Your task to perform on an android device: change keyboard looks Image 0: 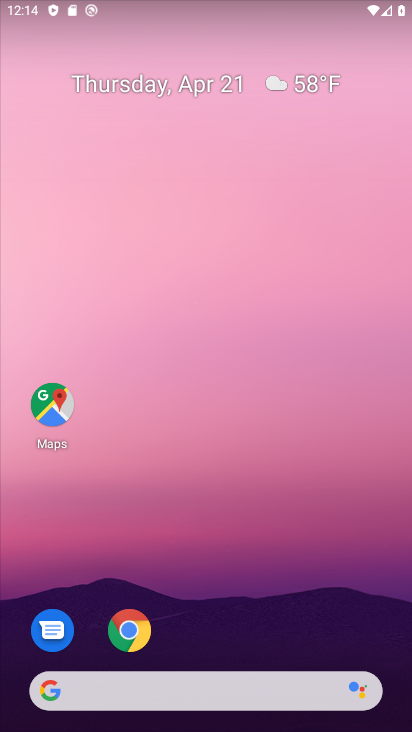
Step 0: drag from (214, 633) to (314, 147)
Your task to perform on an android device: change keyboard looks Image 1: 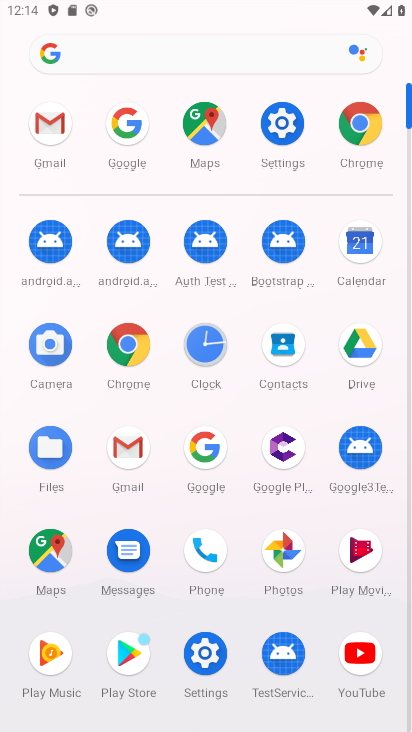
Step 1: click (283, 135)
Your task to perform on an android device: change keyboard looks Image 2: 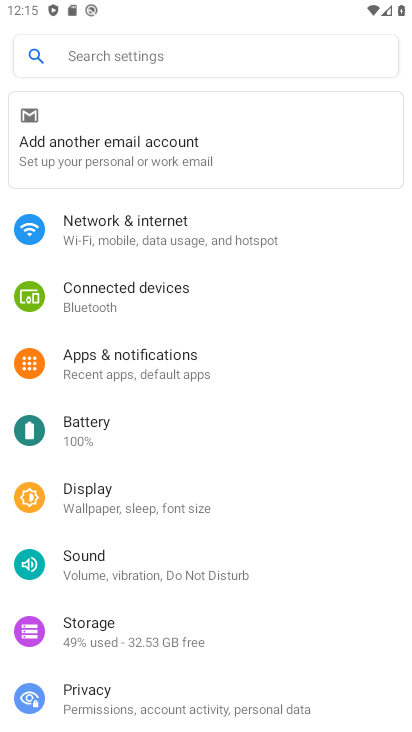
Step 2: drag from (197, 607) to (340, 100)
Your task to perform on an android device: change keyboard looks Image 3: 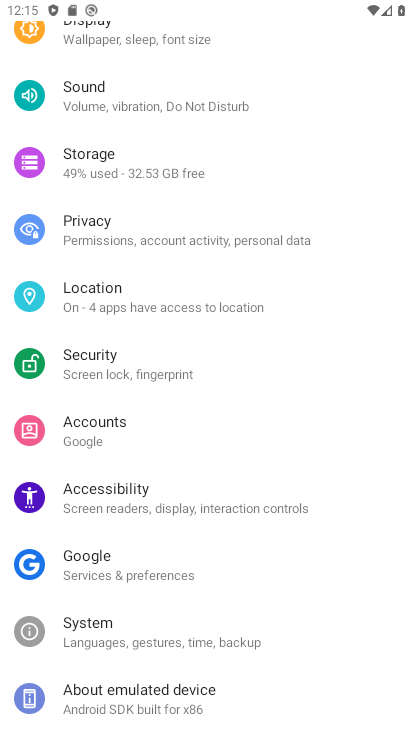
Step 3: click (114, 639)
Your task to perform on an android device: change keyboard looks Image 4: 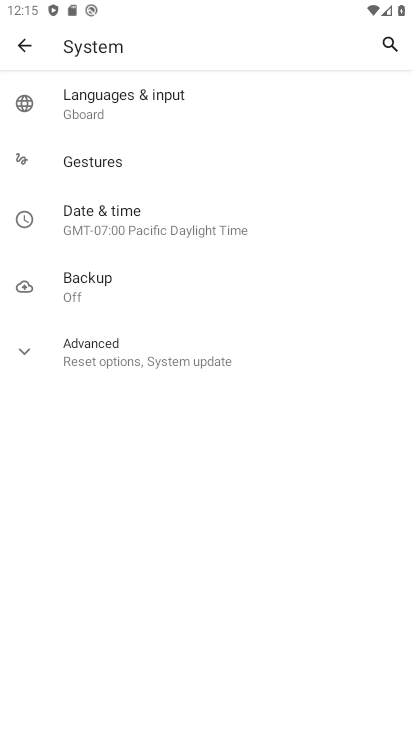
Step 4: click (115, 106)
Your task to perform on an android device: change keyboard looks Image 5: 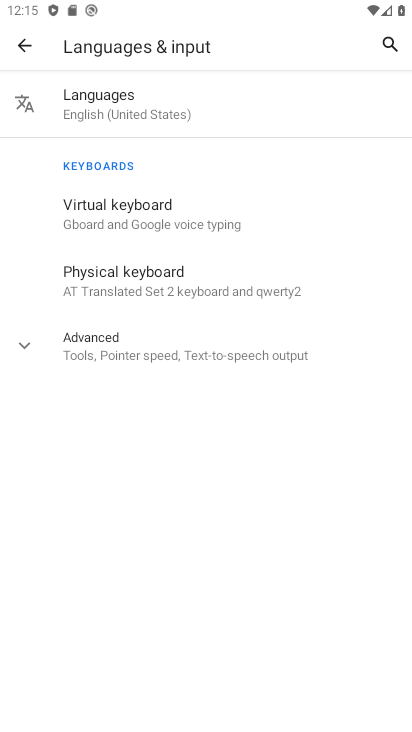
Step 5: click (103, 222)
Your task to perform on an android device: change keyboard looks Image 6: 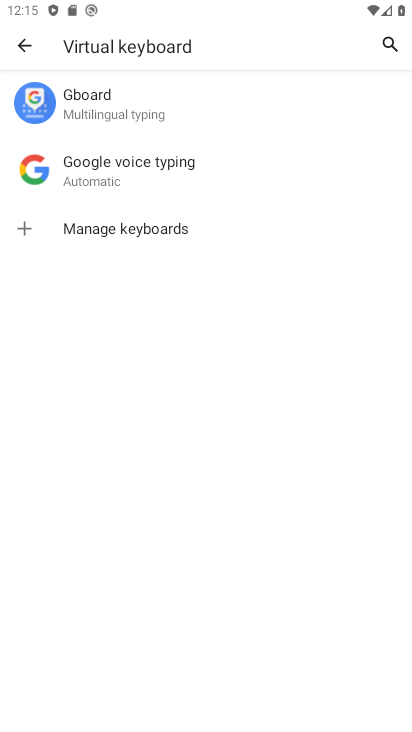
Step 6: click (108, 95)
Your task to perform on an android device: change keyboard looks Image 7: 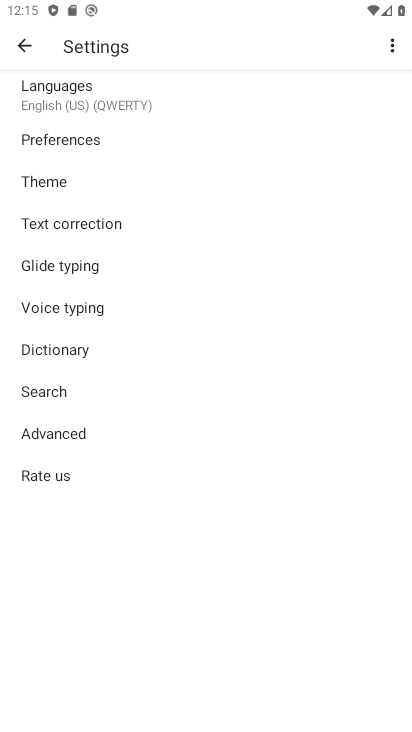
Step 7: click (47, 189)
Your task to perform on an android device: change keyboard looks Image 8: 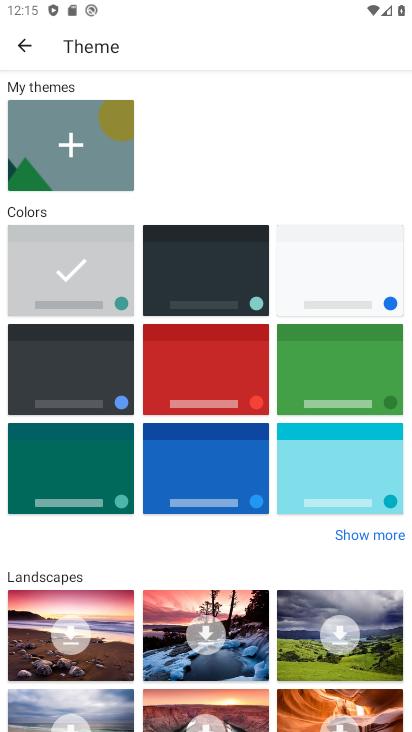
Step 8: click (234, 478)
Your task to perform on an android device: change keyboard looks Image 9: 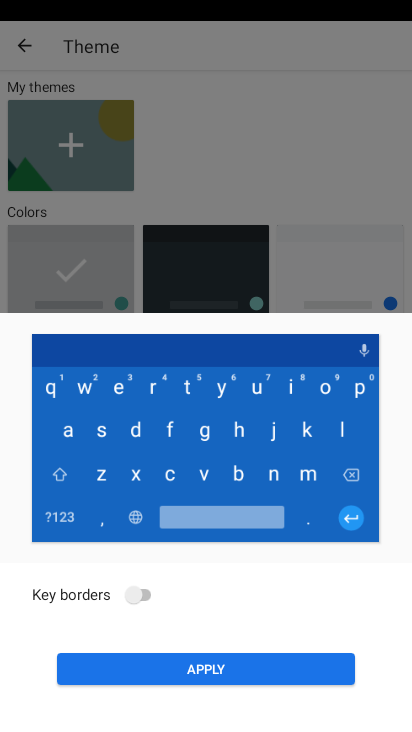
Step 9: click (221, 666)
Your task to perform on an android device: change keyboard looks Image 10: 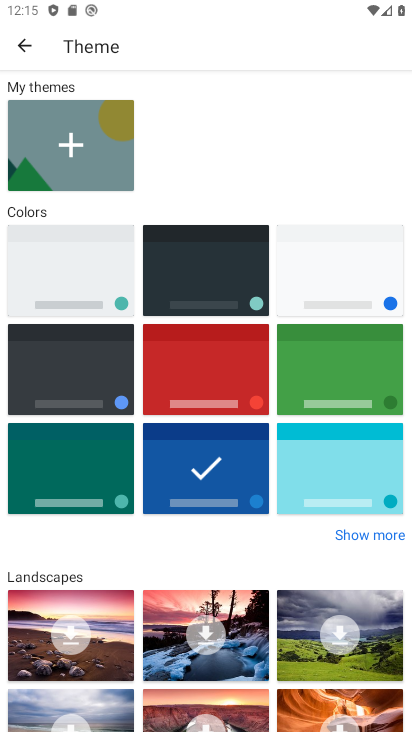
Step 10: task complete